Your task to perform on an android device: check android version Image 0: 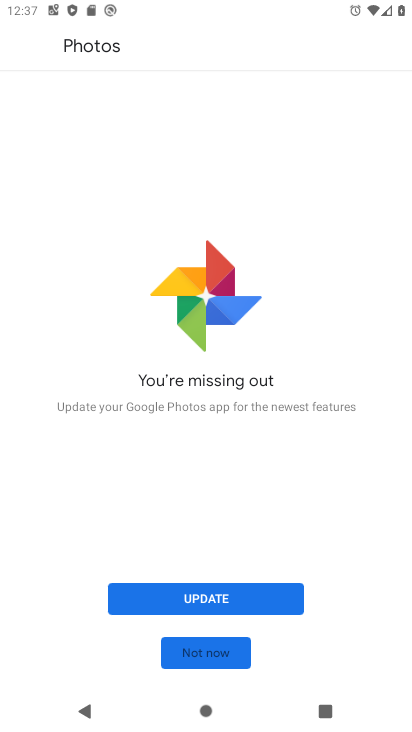
Step 0: press home button
Your task to perform on an android device: check android version Image 1: 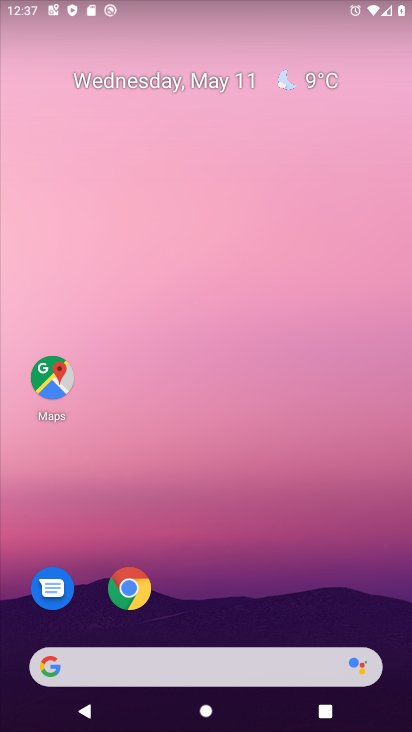
Step 1: drag from (294, 278) to (364, 36)
Your task to perform on an android device: check android version Image 2: 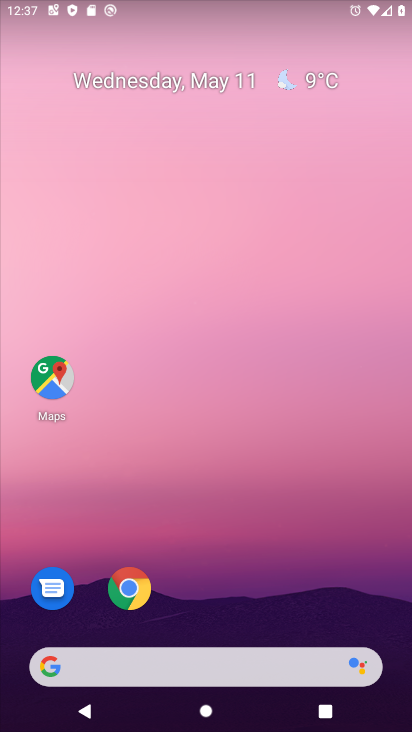
Step 2: drag from (286, 598) to (346, 7)
Your task to perform on an android device: check android version Image 3: 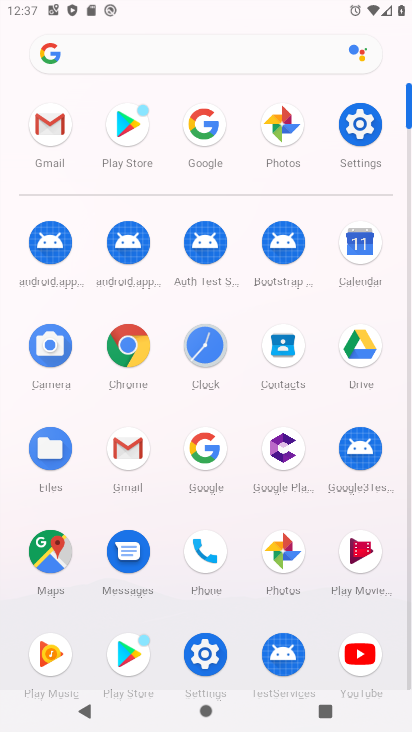
Step 3: click (361, 129)
Your task to perform on an android device: check android version Image 4: 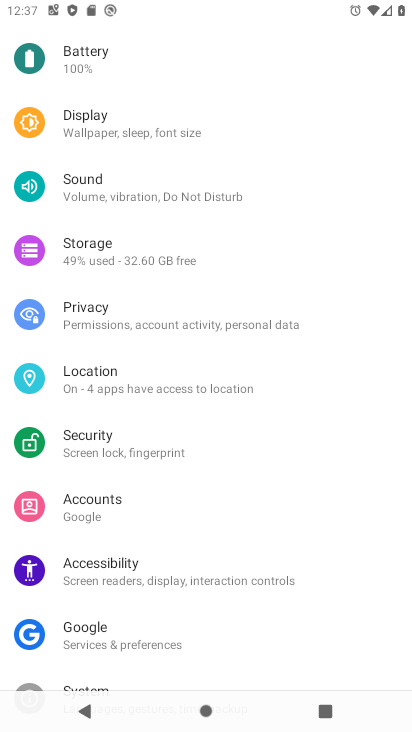
Step 4: drag from (234, 585) to (232, 65)
Your task to perform on an android device: check android version Image 5: 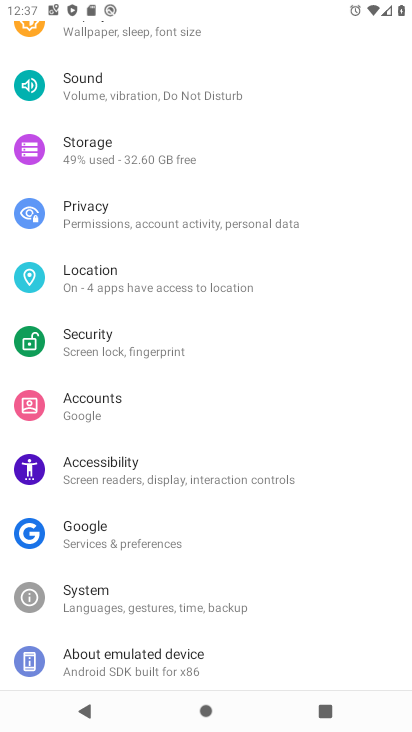
Step 5: click (112, 658)
Your task to perform on an android device: check android version Image 6: 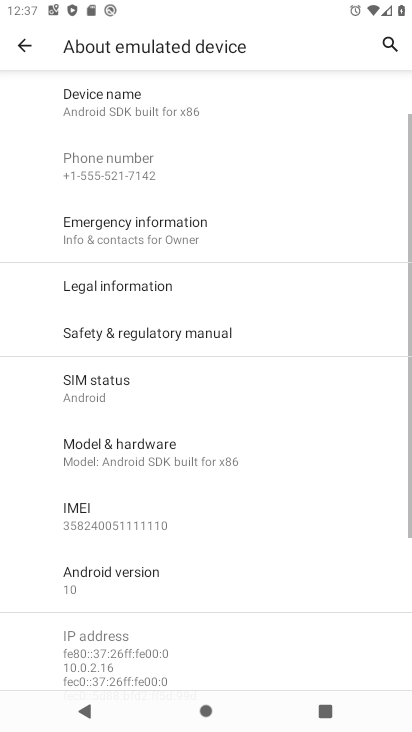
Step 6: click (97, 578)
Your task to perform on an android device: check android version Image 7: 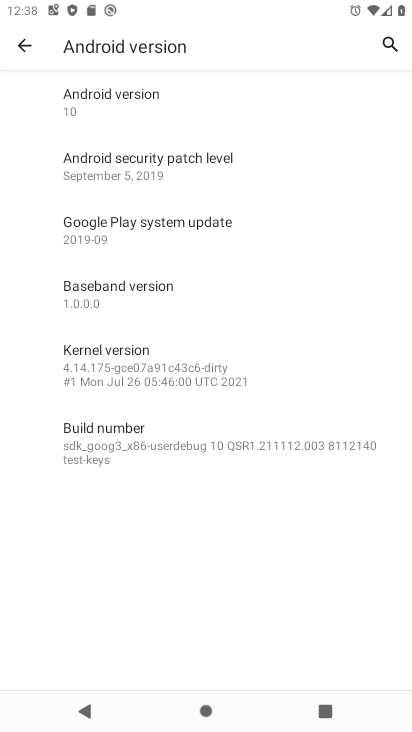
Step 7: task complete